Your task to perform on an android device: change timer sound Image 0: 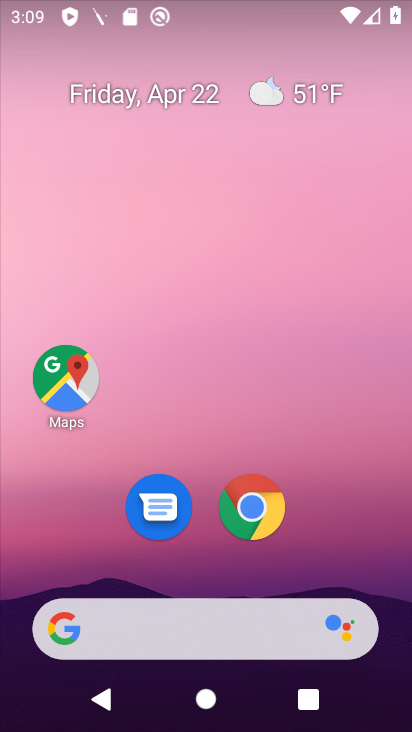
Step 0: drag from (201, 629) to (348, 86)
Your task to perform on an android device: change timer sound Image 1: 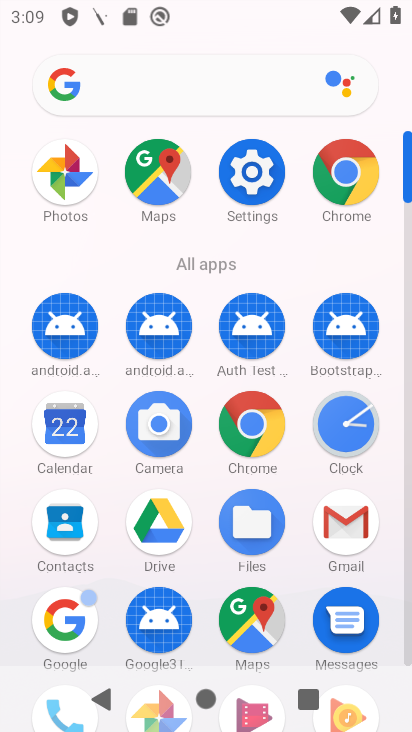
Step 1: click (333, 433)
Your task to perform on an android device: change timer sound Image 2: 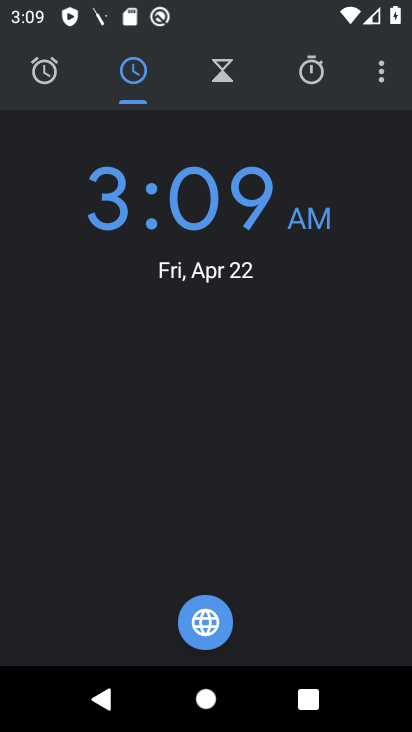
Step 2: click (380, 78)
Your task to perform on an android device: change timer sound Image 3: 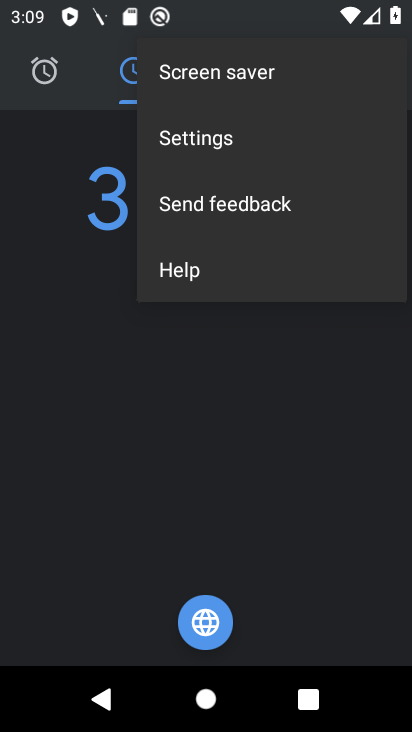
Step 3: click (203, 141)
Your task to perform on an android device: change timer sound Image 4: 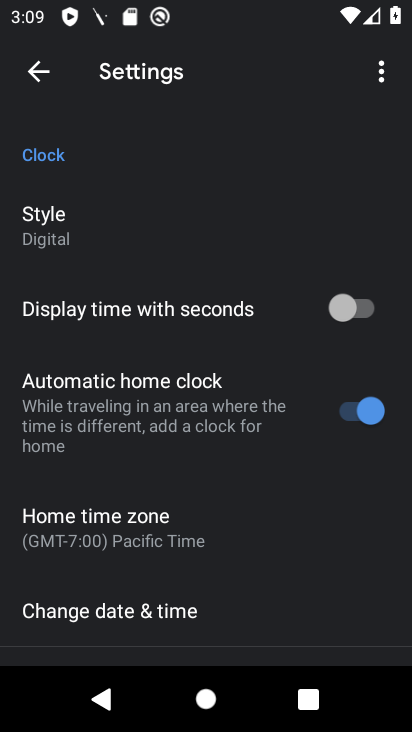
Step 4: drag from (178, 567) to (305, 161)
Your task to perform on an android device: change timer sound Image 5: 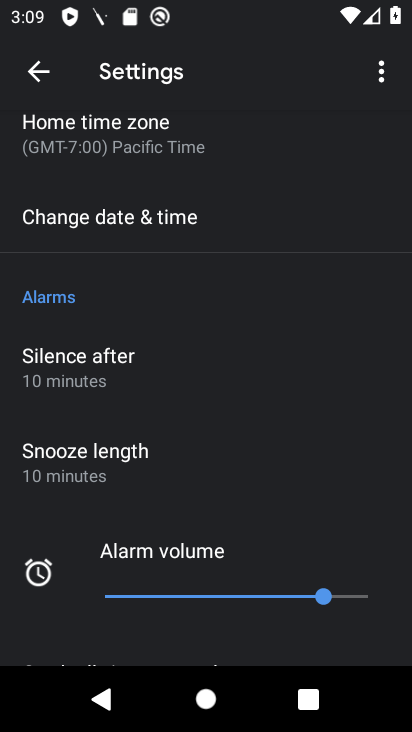
Step 5: drag from (117, 504) to (369, 54)
Your task to perform on an android device: change timer sound Image 6: 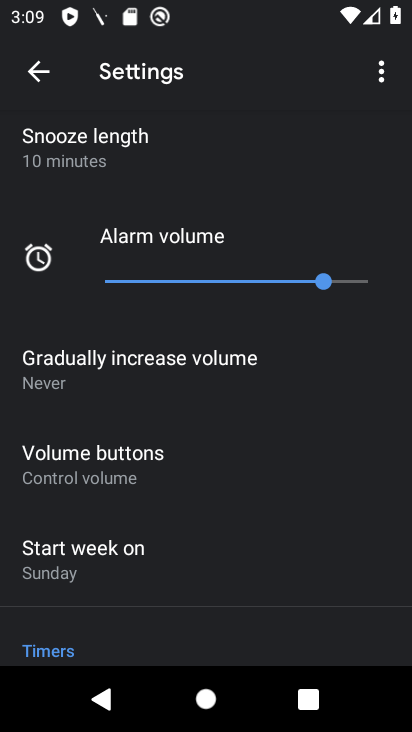
Step 6: drag from (138, 559) to (305, 72)
Your task to perform on an android device: change timer sound Image 7: 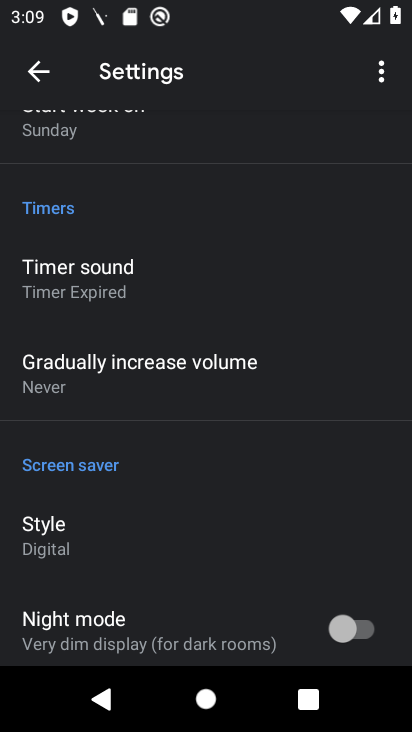
Step 7: click (111, 274)
Your task to perform on an android device: change timer sound Image 8: 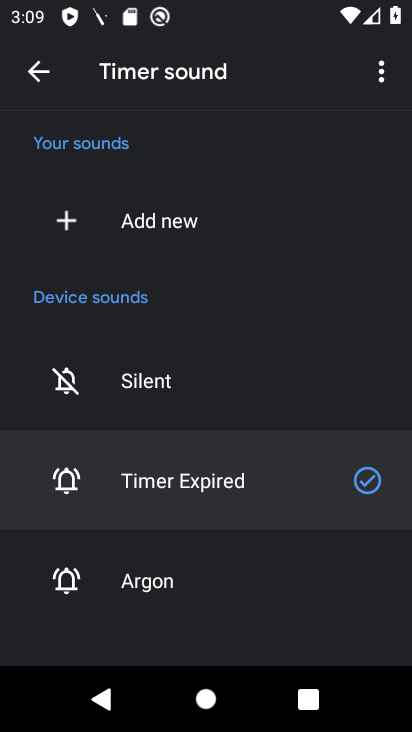
Step 8: click (192, 378)
Your task to perform on an android device: change timer sound Image 9: 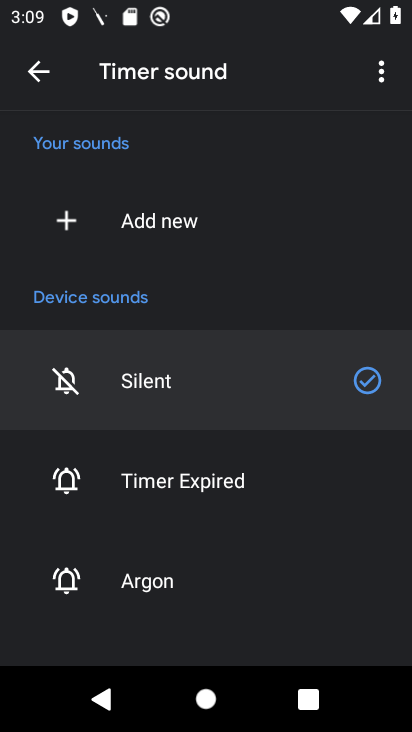
Step 9: task complete